Your task to perform on an android device: Play the last video I watched on Youtube Image 0: 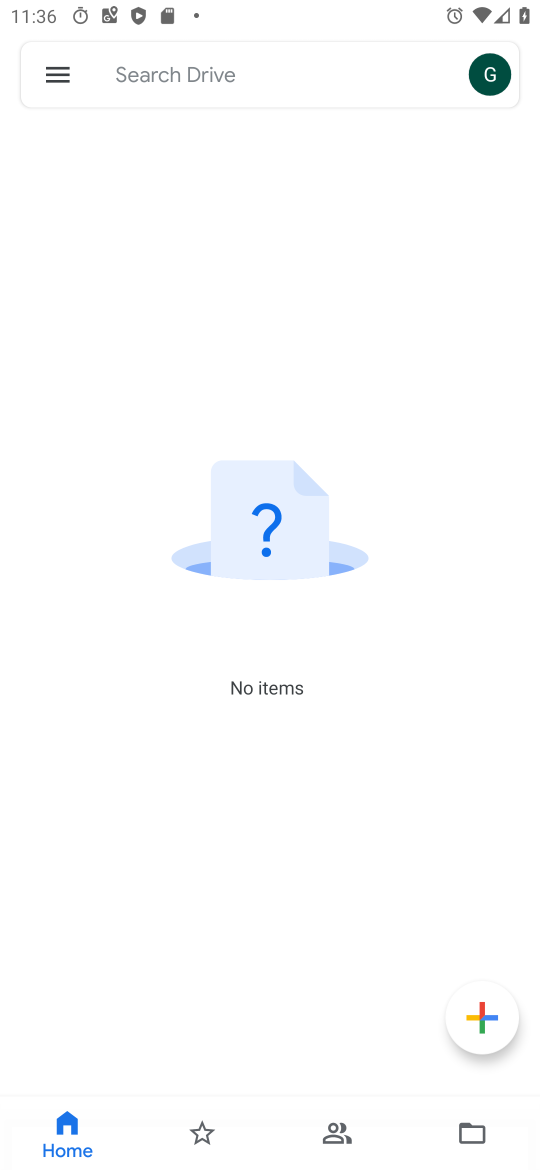
Step 0: drag from (318, 484) to (284, 806)
Your task to perform on an android device: Play the last video I watched on Youtube Image 1: 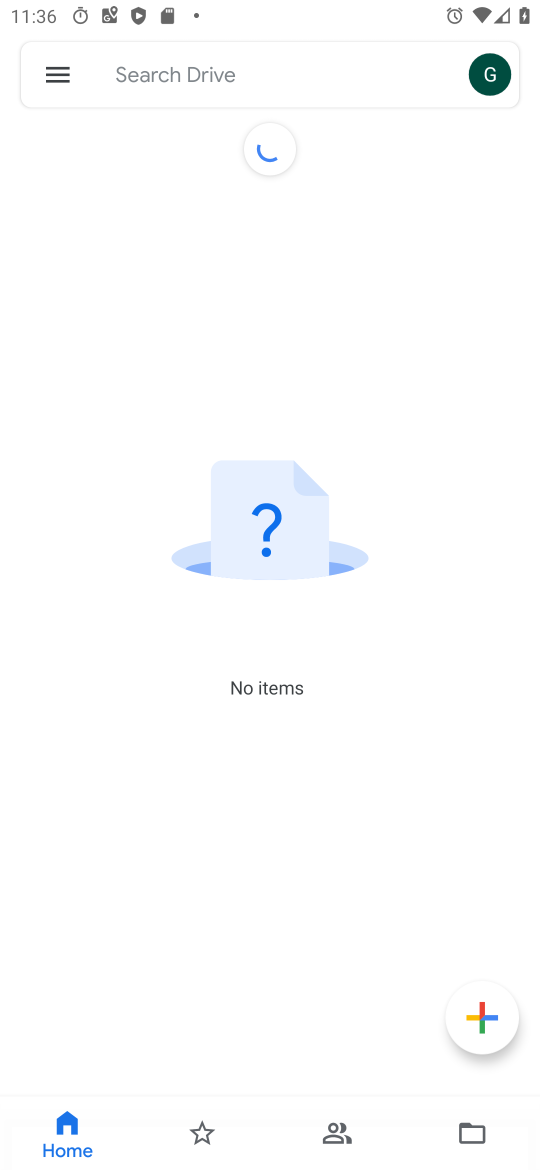
Step 1: press back button
Your task to perform on an android device: Play the last video I watched on Youtube Image 2: 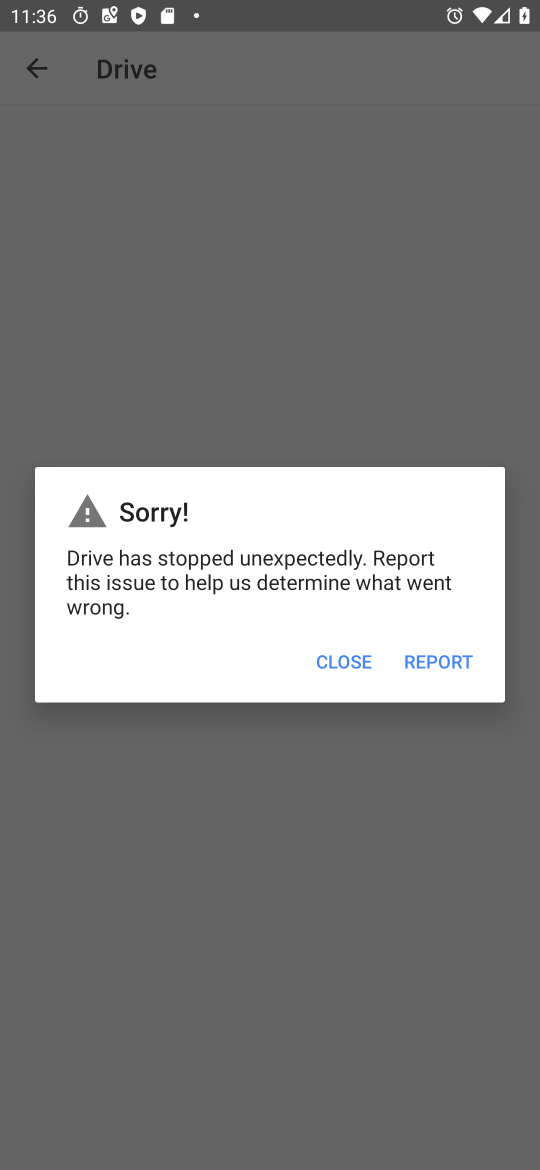
Step 2: press home button
Your task to perform on an android device: Play the last video I watched on Youtube Image 3: 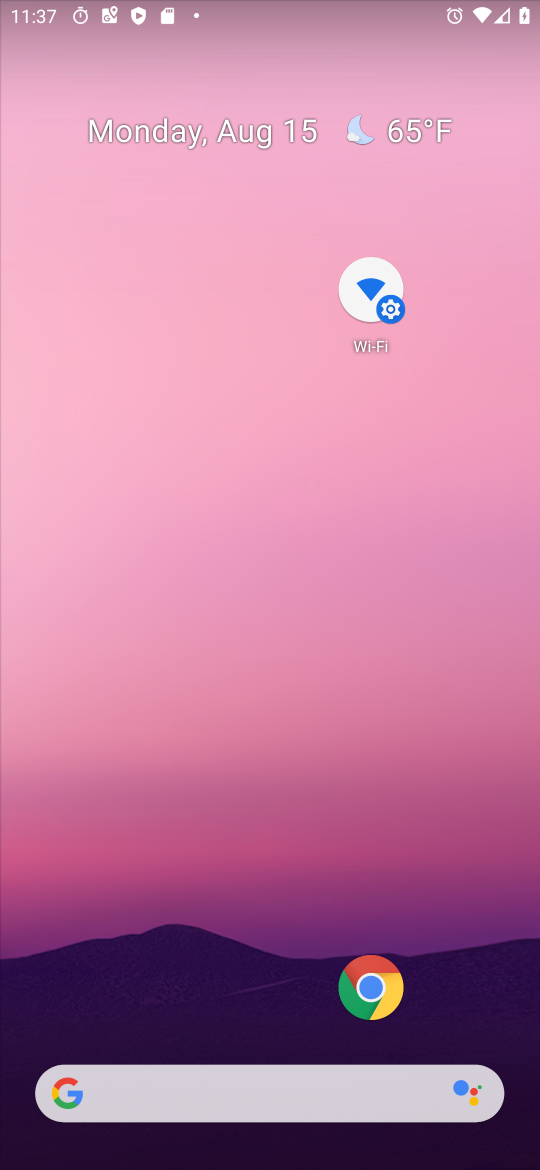
Step 3: drag from (204, 1053) to (184, 239)
Your task to perform on an android device: Play the last video I watched on Youtube Image 4: 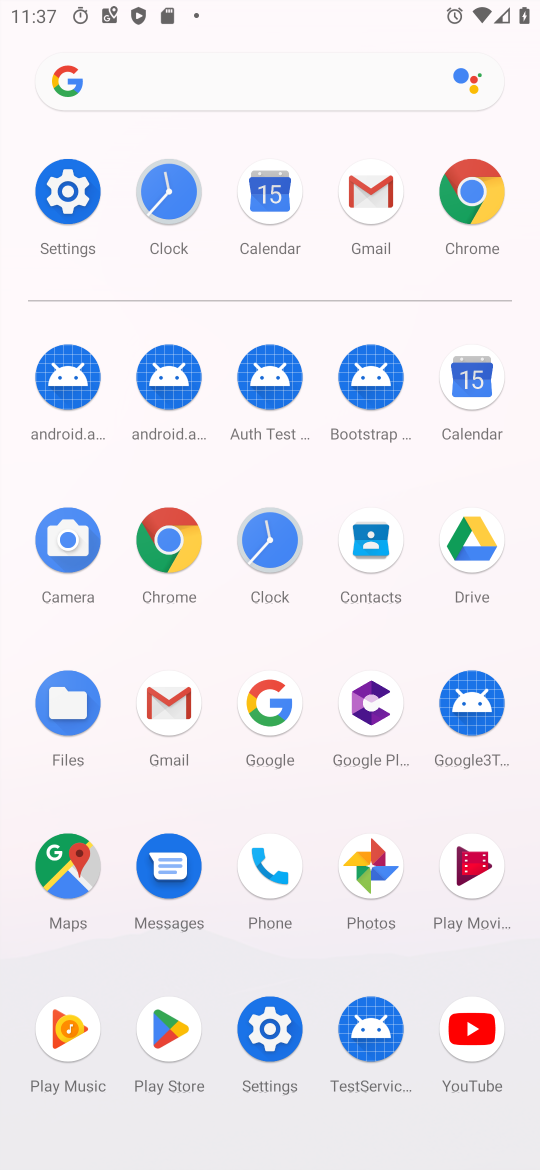
Step 4: click (467, 1004)
Your task to perform on an android device: Play the last video I watched on Youtube Image 5: 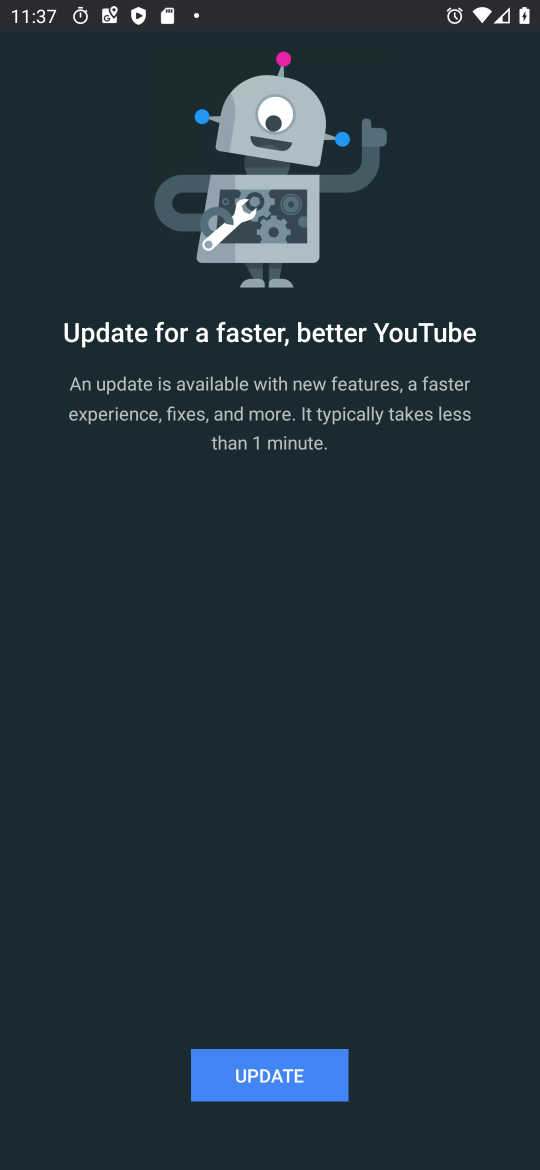
Step 5: click (207, 1072)
Your task to perform on an android device: Play the last video I watched on Youtube Image 6: 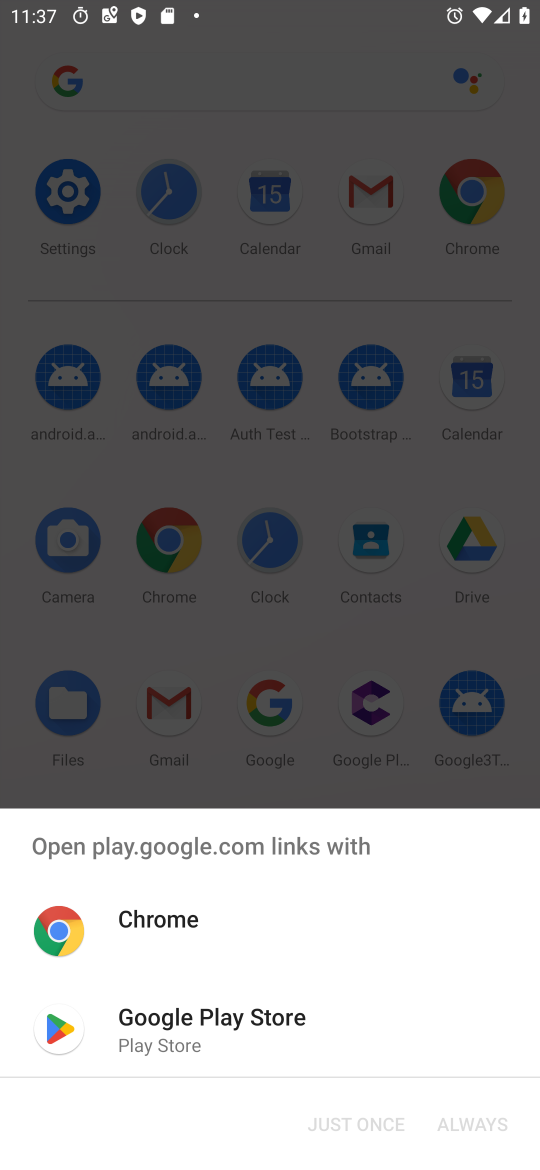
Step 6: click (146, 1039)
Your task to perform on an android device: Play the last video I watched on Youtube Image 7: 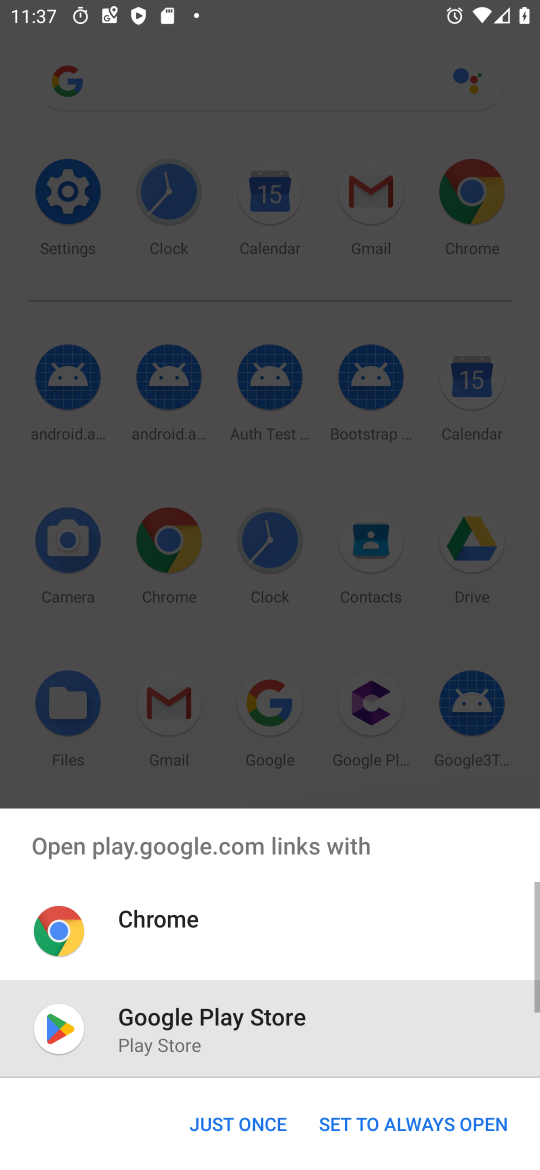
Step 7: click (254, 1128)
Your task to perform on an android device: Play the last video I watched on Youtube Image 8: 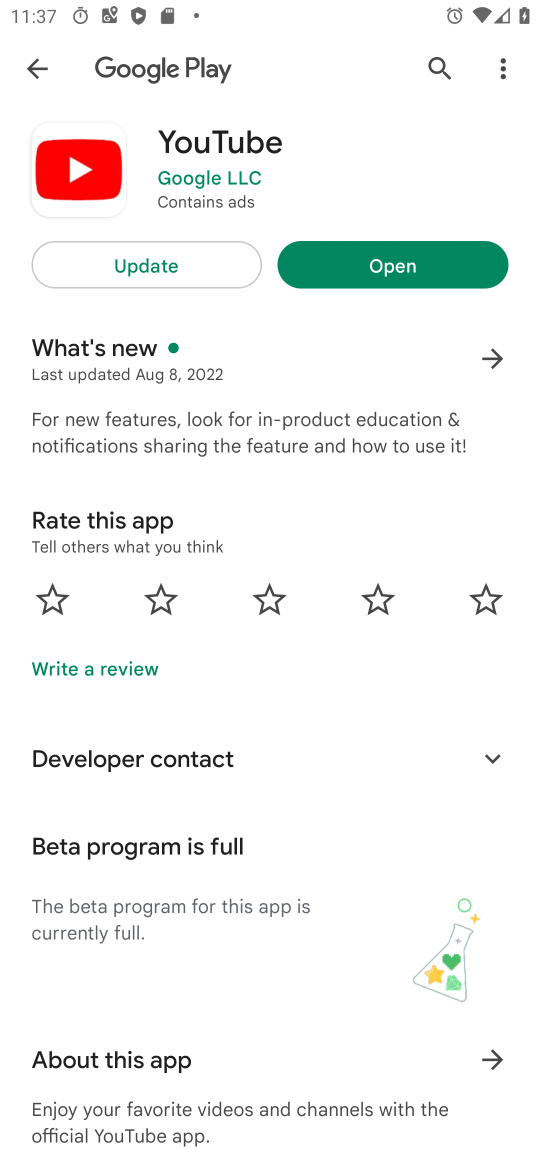
Step 8: click (197, 265)
Your task to perform on an android device: Play the last video I watched on Youtube Image 9: 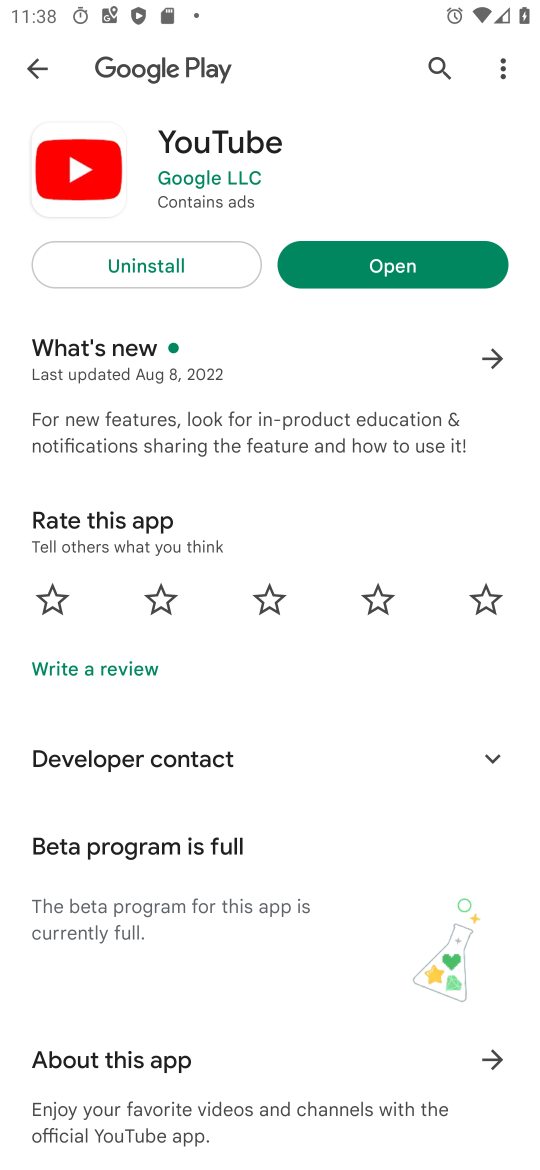
Step 9: click (359, 289)
Your task to perform on an android device: Play the last video I watched on Youtube Image 10: 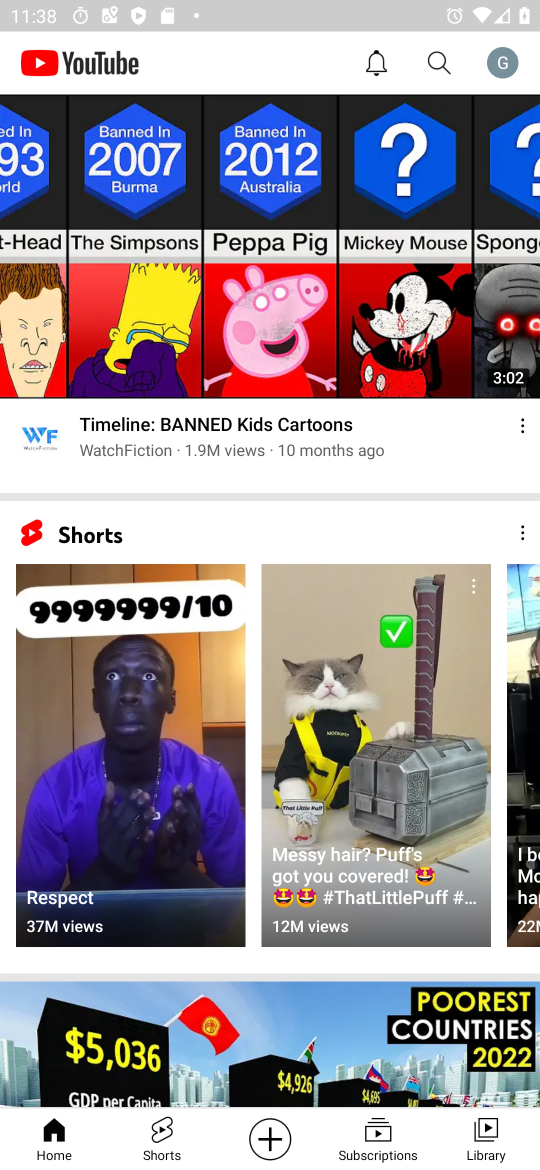
Step 10: click (486, 1138)
Your task to perform on an android device: Play the last video I watched on Youtube Image 11: 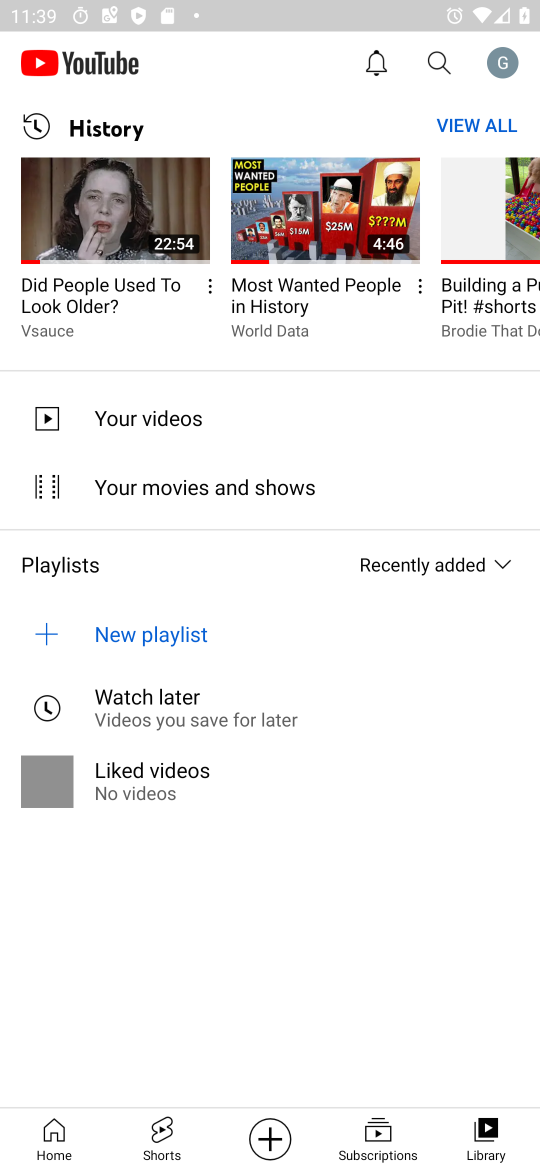
Step 11: click (110, 251)
Your task to perform on an android device: Play the last video I watched on Youtube Image 12: 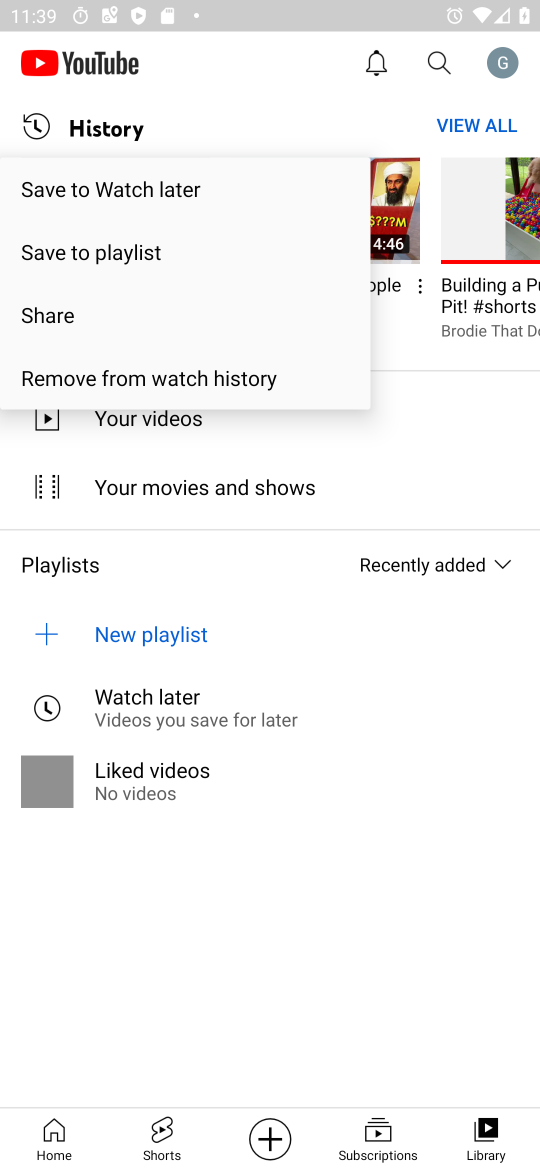
Step 12: task complete